Your task to perform on an android device: move an email to a new category in the gmail app Image 0: 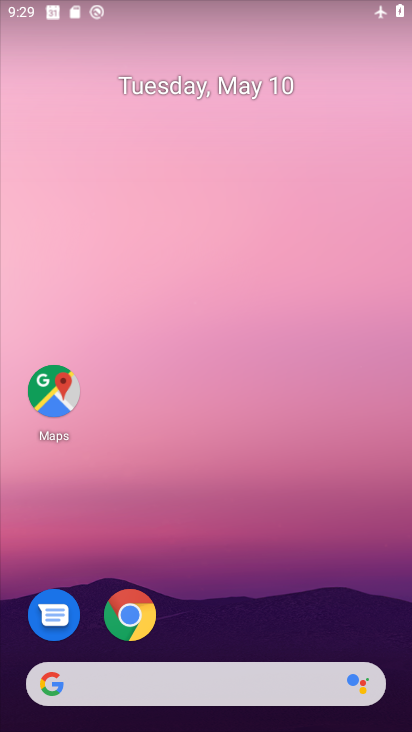
Step 0: drag from (202, 620) to (180, 145)
Your task to perform on an android device: move an email to a new category in the gmail app Image 1: 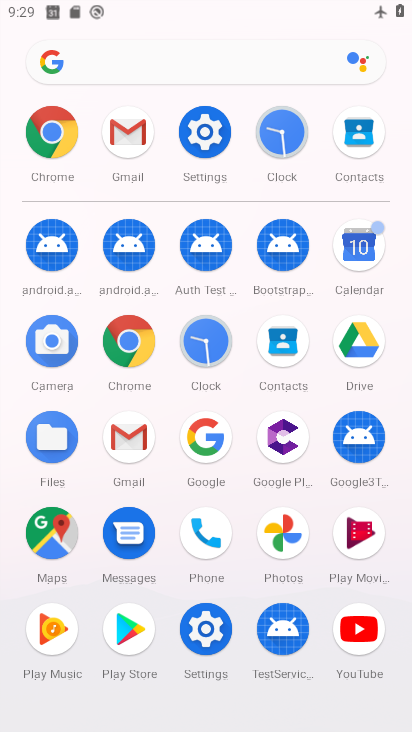
Step 1: click (134, 436)
Your task to perform on an android device: move an email to a new category in the gmail app Image 2: 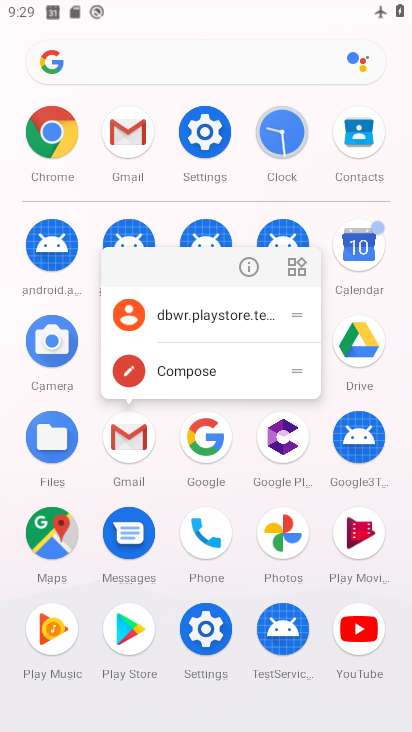
Step 2: click (238, 271)
Your task to perform on an android device: move an email to a new category in the gmail app Image 3: 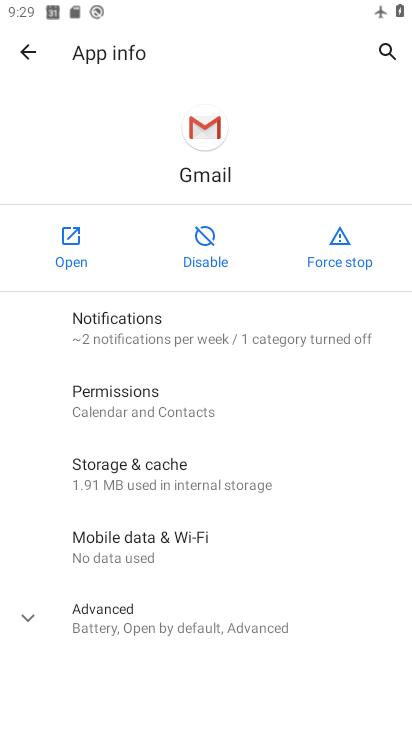
Step 3: click (46, 259)
Your task to perform on an android device: move an email to a new category in the gmail app Image 4: 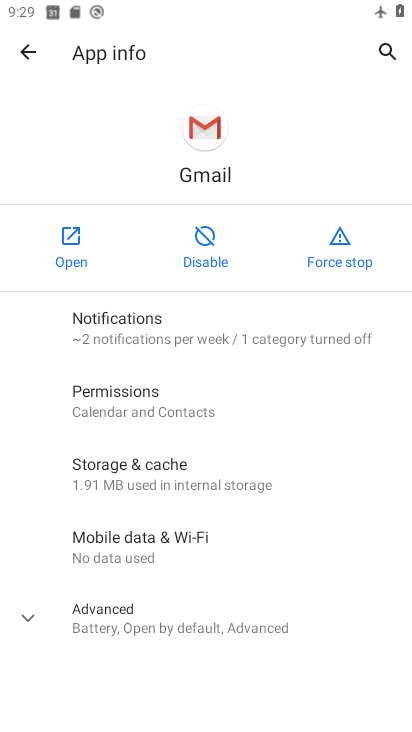
Step 4: click (46, 259)
Your task to perform on an android device: move an email to a new category in the gmail app Image 5: 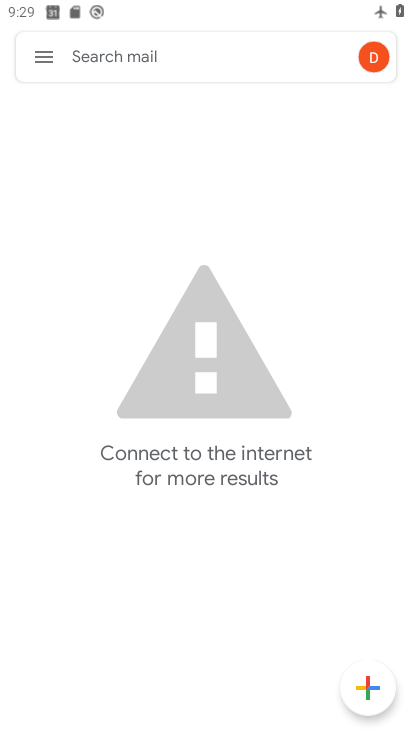
Step 5: click (32, 57)
Your task to perform on an android device: move an email to a new category in the gmail app Image 6: 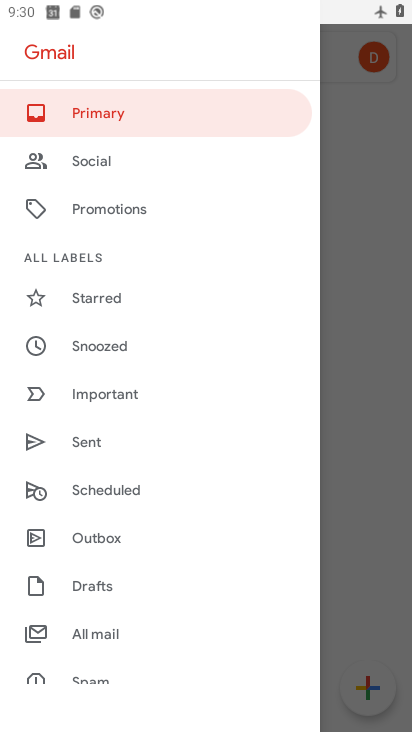
Step 6: task complete